Your task to perform on an android device: Open Android settings Image 0: 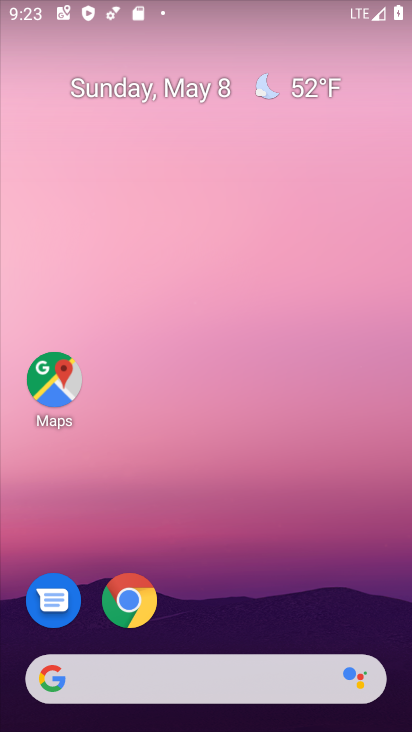
Step 0: drag from (335, 586) to (273, 5)
Your task to perform on an android device: Open Android settings Image 1: 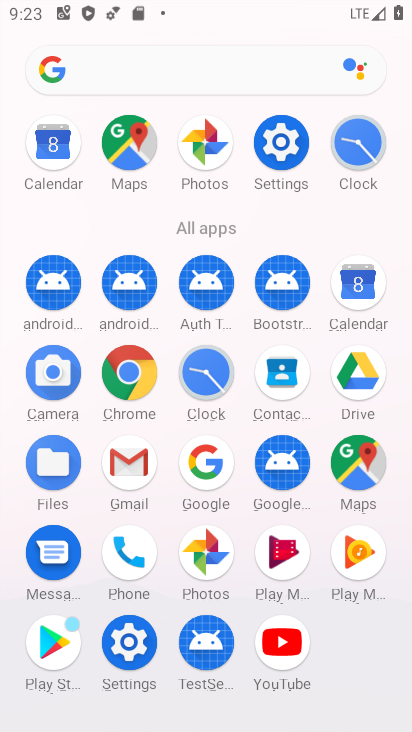
Step 1: click (272, 173)
Your task to perform on an android device: Open Android settings Image 2: 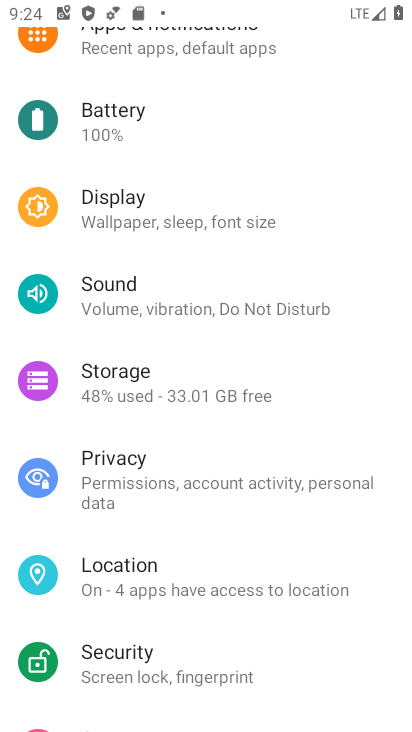
Step 2: task complete